Your task to perform on an android device: Go to Android settings Image 0: 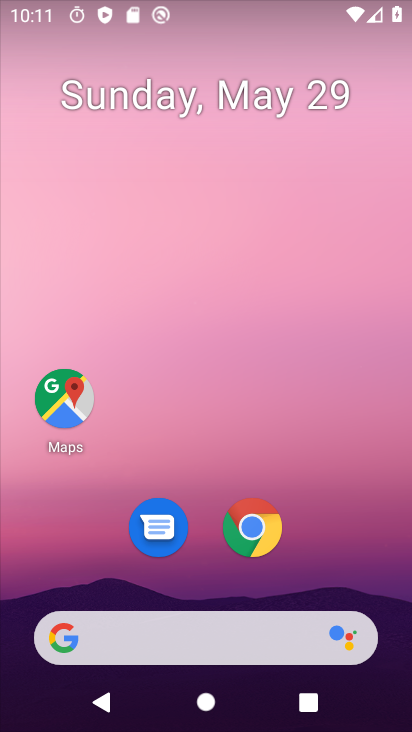
Step 0: drag from (352, 554) to (317, 185)
Your task to perform on an android device: Go to Android settings Image 1: 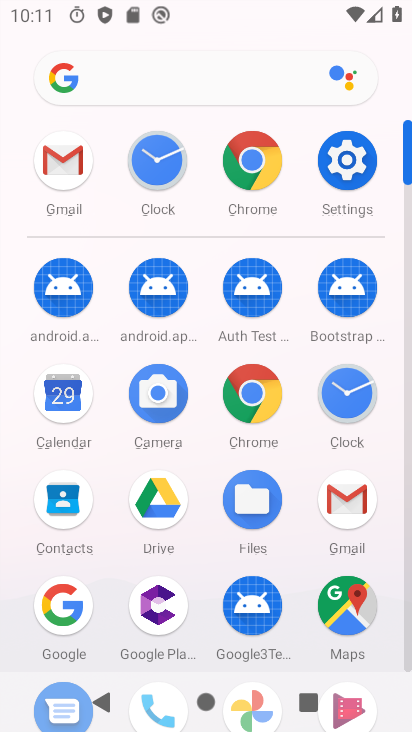
Step 1: click (359, 146)
Your task to perform on an android device: Go to Android settings Image 2: 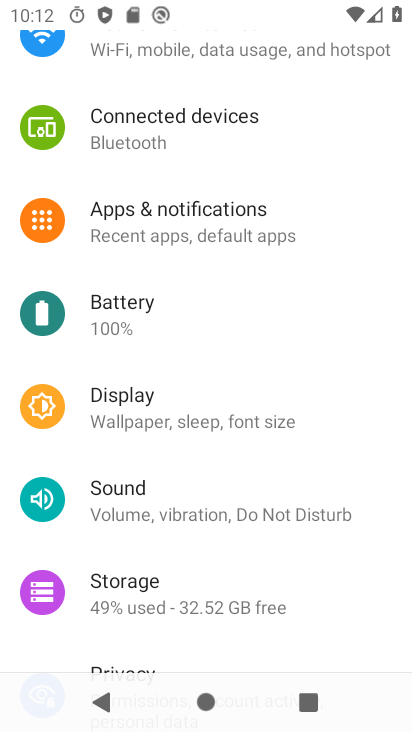
Step 2: task complete